Your task to perform on an android device: turn on wifi Image 0: 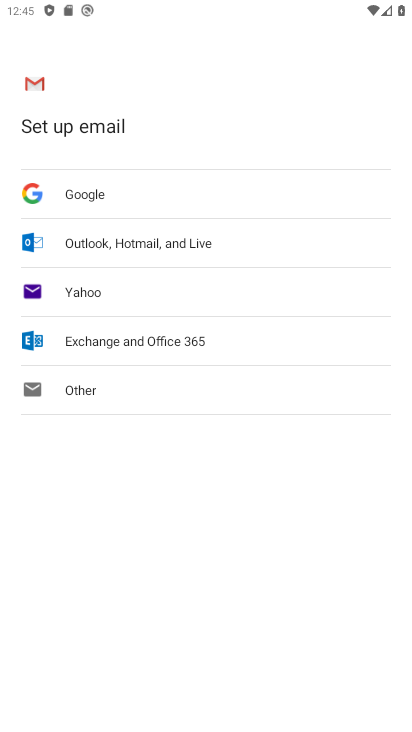
Step 0: press home button
Your task to perform on an android device: turn on wifi Image 1: 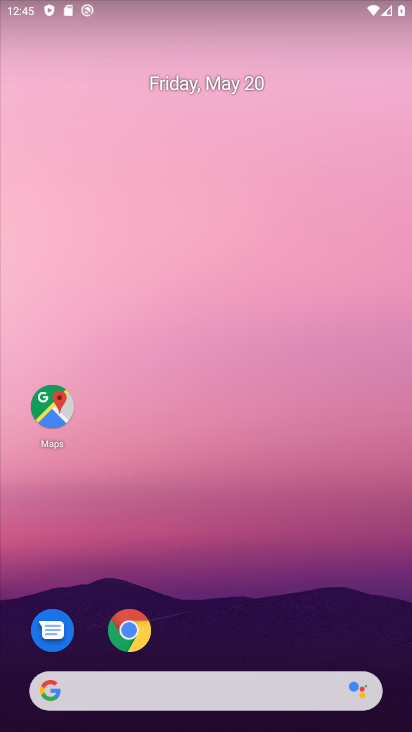
Step 1: drag from (273, 718) to (313, 223)
Your task to perform on an android device: turn on wifi Image 2: 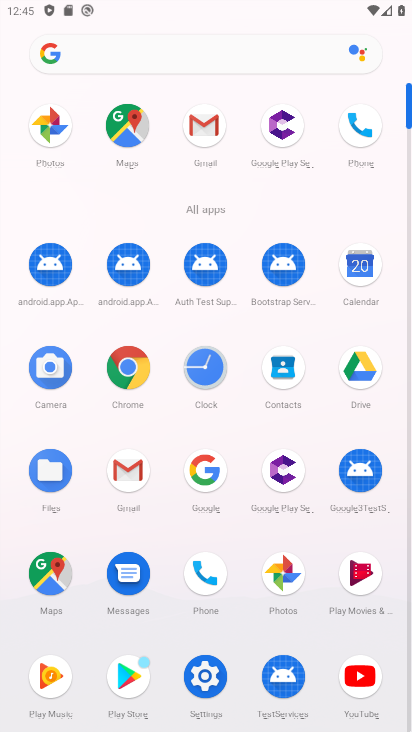
Step 2: click (204, 668)
Your task to perform on an android device: turn on wifi Image 3: 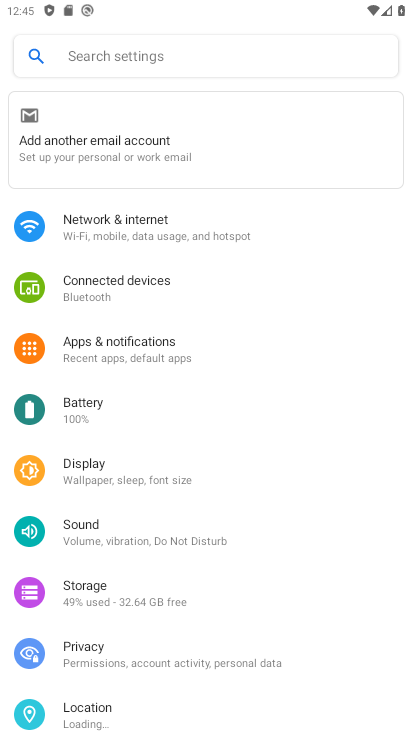
Step 3: click (121, 237)
Your task to perform on an android device: turn on wifi Image 4: 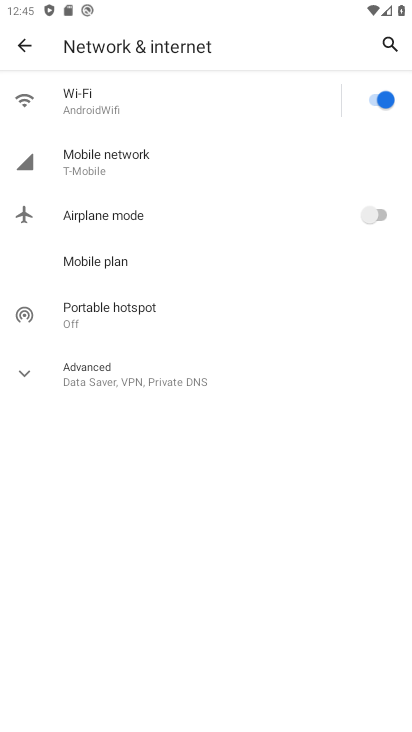
Step 4: click (150, 112)
Your task to perform on an android device: turn on wifi Image 5: 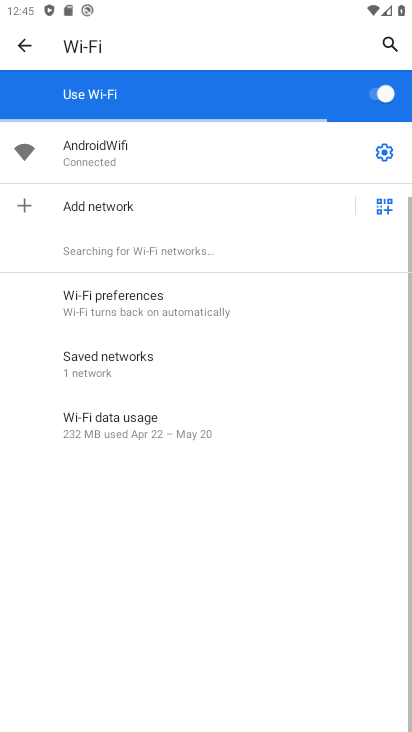
Step 5: click (390, 96)
Your task to perform on an android device: turn on wifi Image 6: 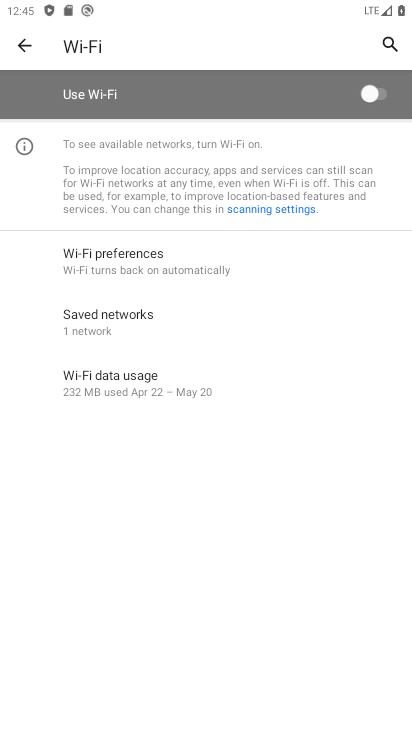
Step 6: click (388, 97)
Your task to perform on an android device: turn on wifi Image 7: 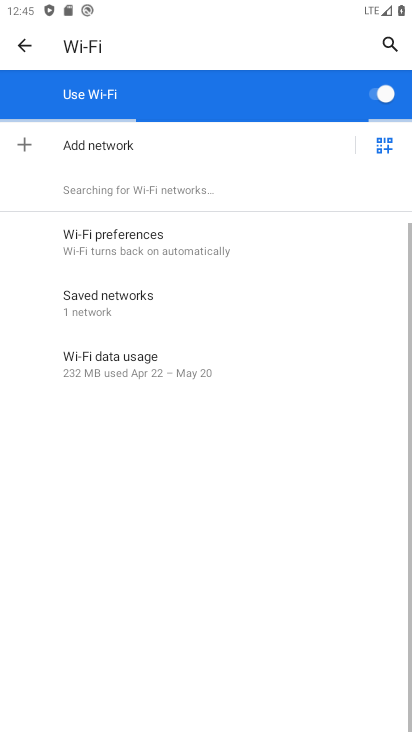
Step 7: task complete